Your task to perform on an android device: turn on notifications settings in the gmail app Image 0: 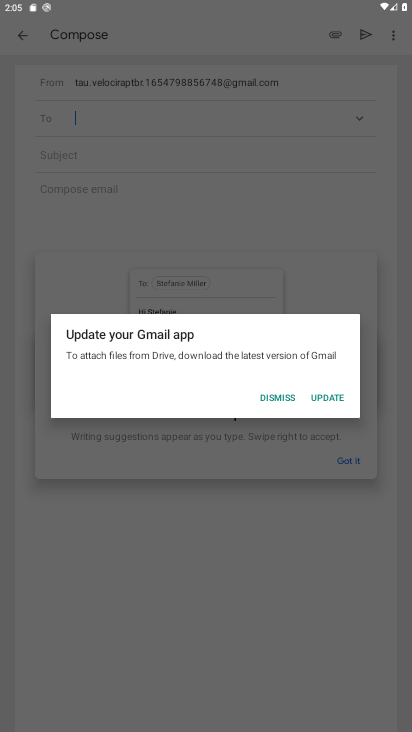
Step 0: press home button
Your task to perform on an android device: turn on notifications settings in the gmail app Image 1: 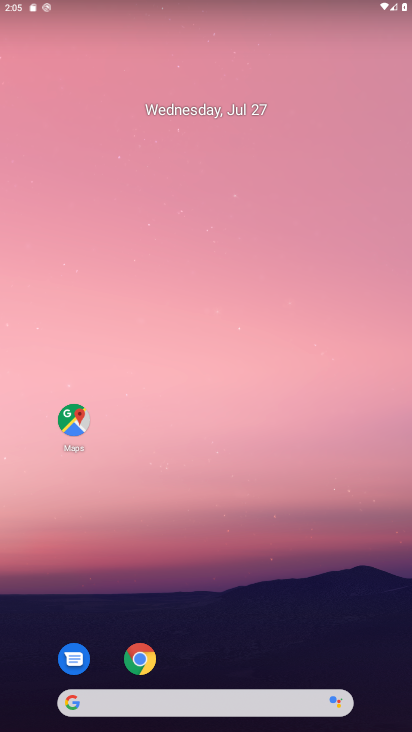
Step 1: drag from (219, 606) to (168, 86)
Your task to perform on an android device: turn on notifications settings in the gmail app Image 2: 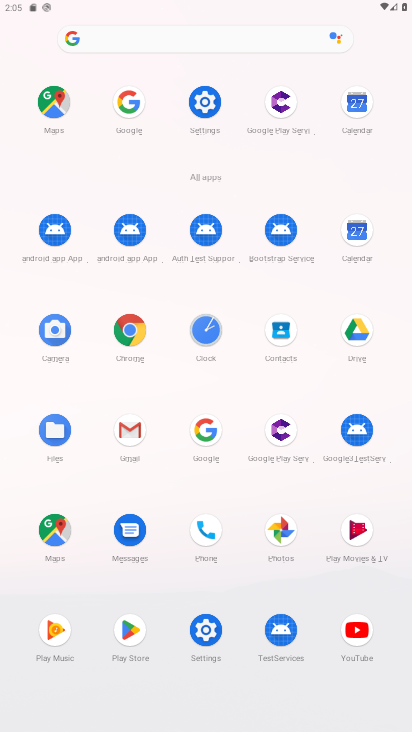
Step 2: click (133, 426)
Your task to perform on an android device: turn on notifications settings in the gmail app Image 3: 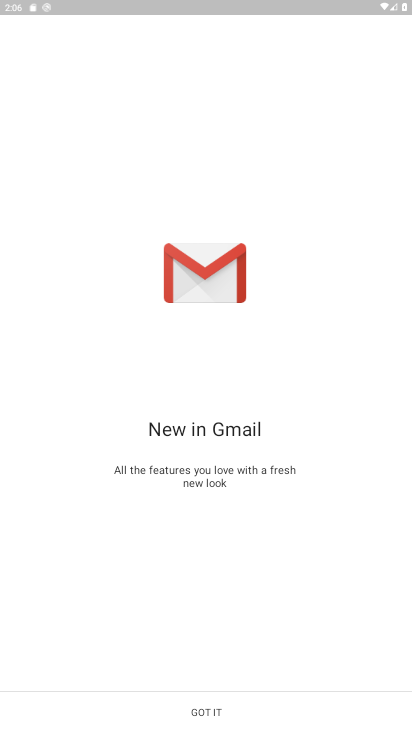
Step 3: click (188, 708)
Your task to perform on an android device: turn on notifications settings in the gmail app Image 4: 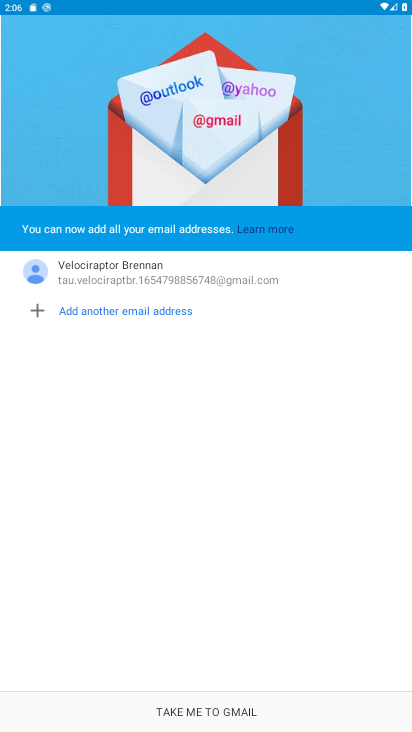
Step 4: click (210, 711)
Your task to perform on an android device: turn on notifications settings in the gmail app Image 5: 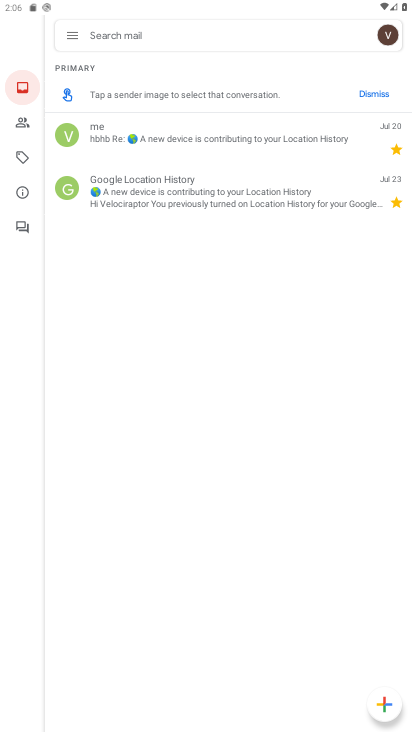
Step 5: click (71, 32)
Your task to perform on an android device: turn on notifications settings in the gmail app Image 6: 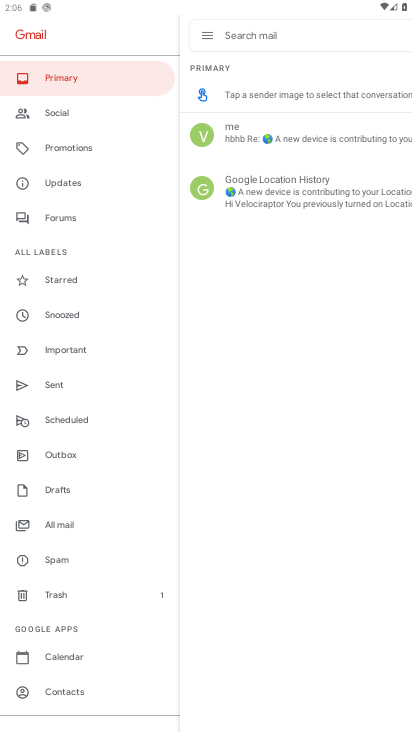
Step 6: drag from (67, 645) to (95, 247)
Your task to perform on an android device: turn on notifications settings in the gmail app Image 7: 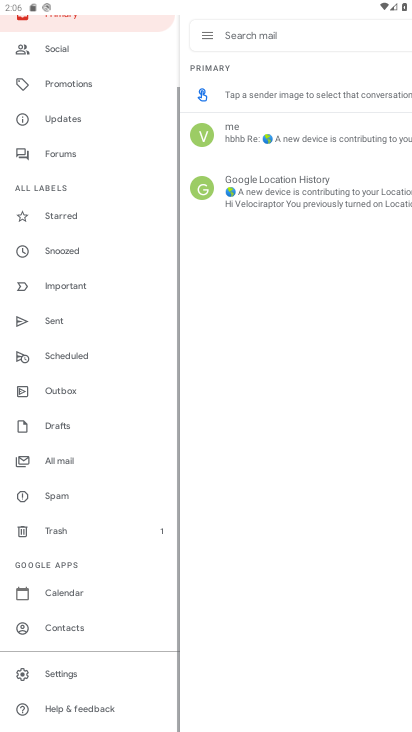
Step 7: click (42, 678)
Your task to perform on an android device: turn on notifications settings in the gmail app Image 8: 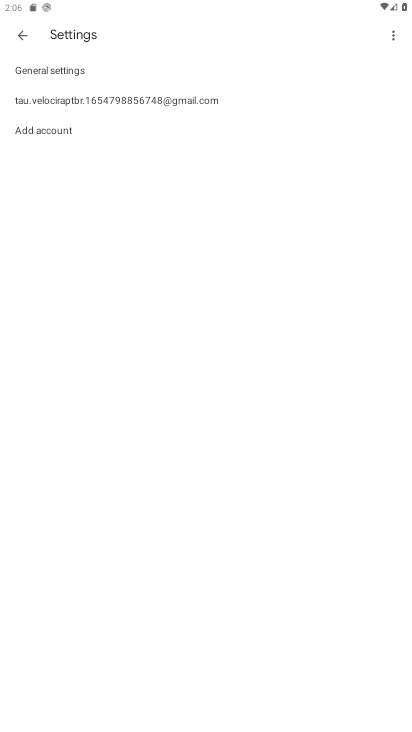
Step 8: click (132, 96)
Your task to perform on an android device: turn on notifications settings in the gmail app Image 9: 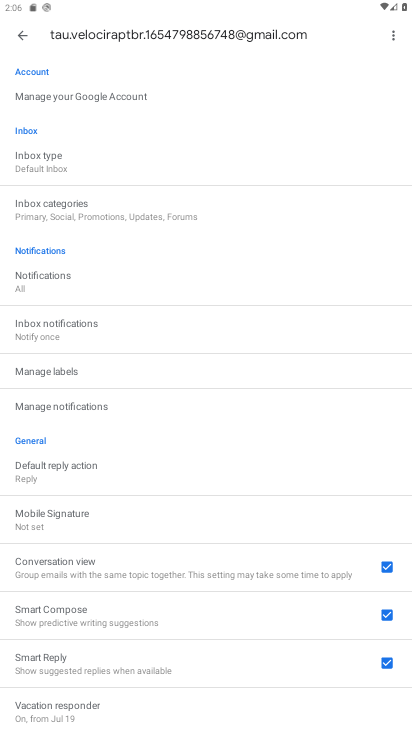
Step 9: click (34, 281)
Your task to perform on an android device: turn on notifications settings in the gmail app Image 10: 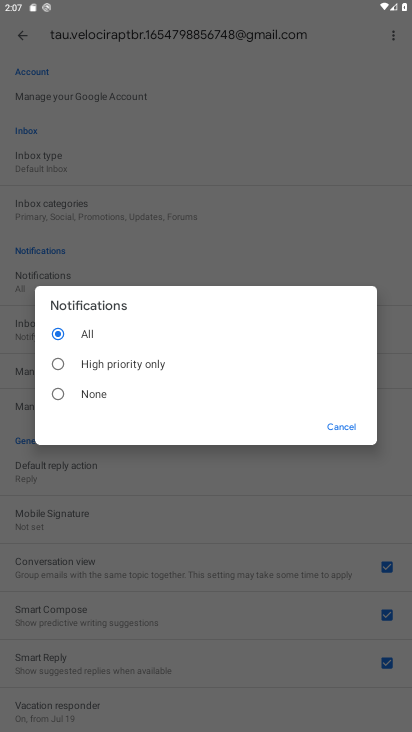
Step 10: task complete